Your task to perform on an android device: Show me productivity apps on the Play Store Image 0: 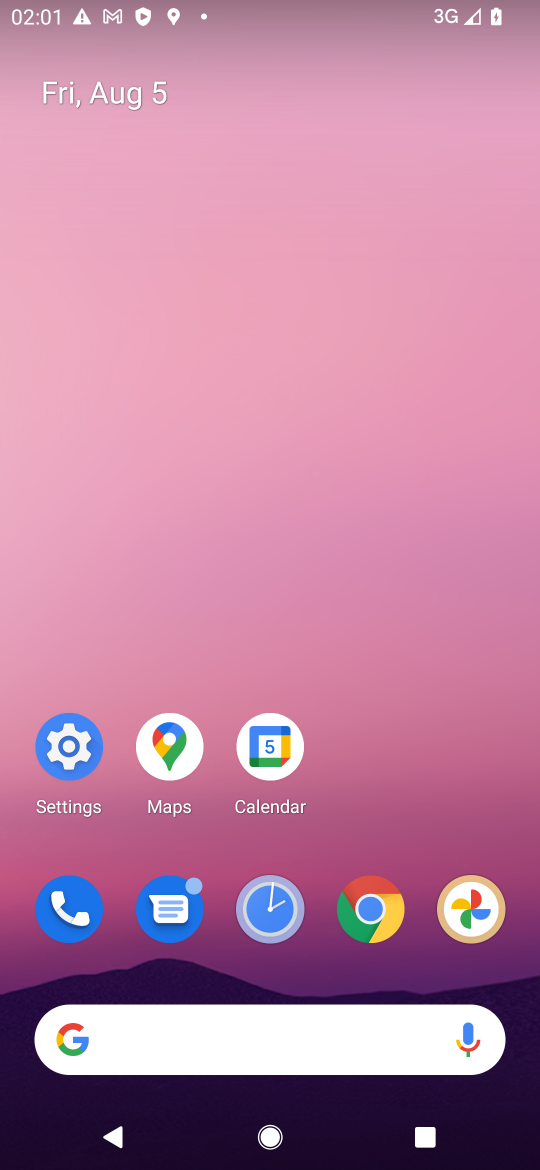
Step 0: drag from (385, 791) to (357, 192)
Your task to perform on an android device: Show me productivity apps on the Play Store Image 1: 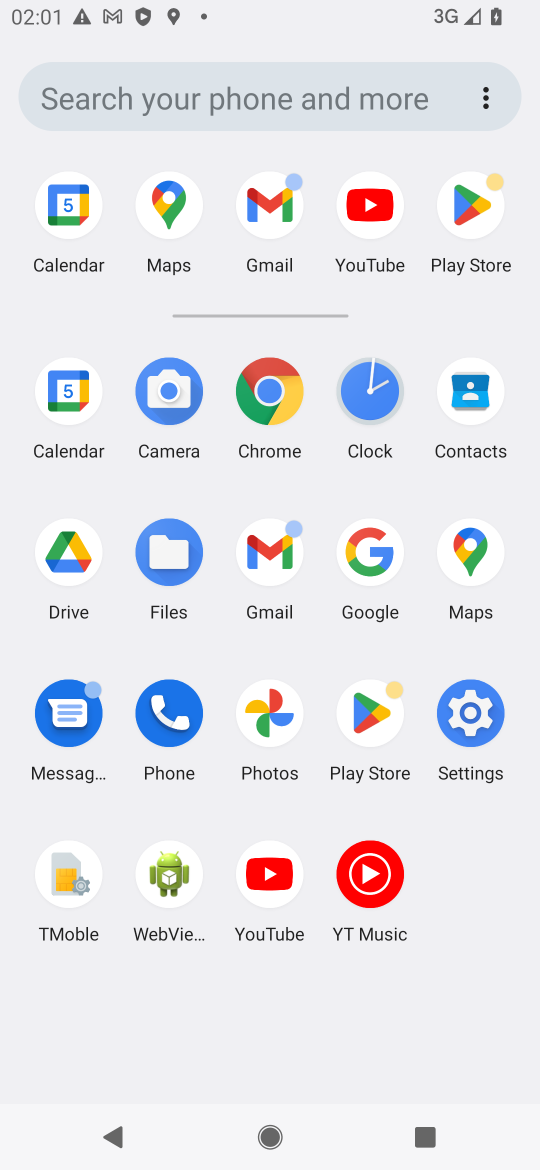
Step 1: click (375, 707)
Your task to perform on an android device: Show me productivity apps on the Play Store Image 2: 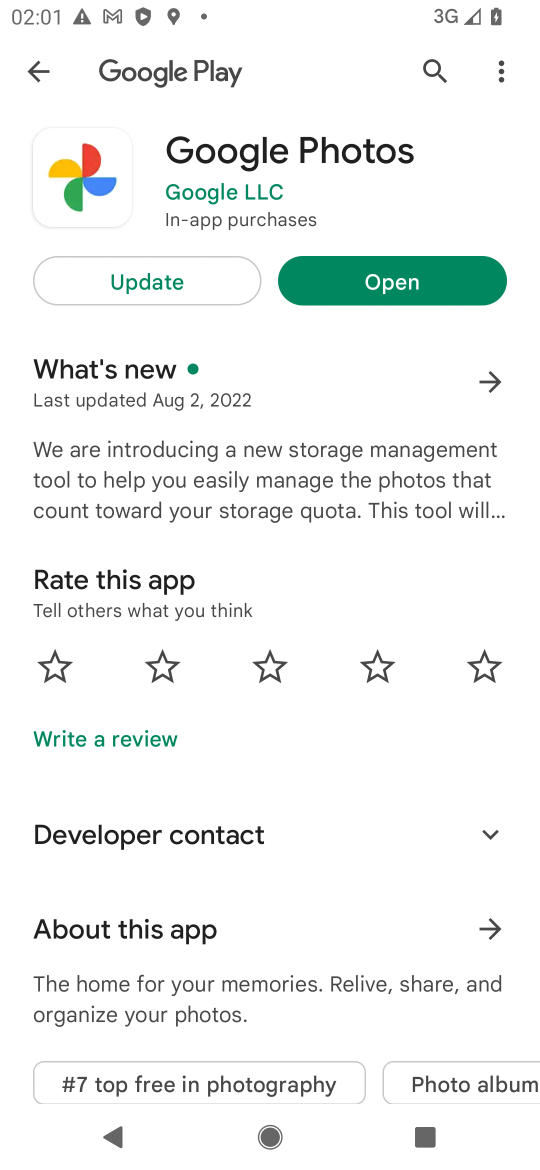
Step 2: click (31, 72)
Your task to perform on an android device: Show me productivity apps on the Play Store Image 3: 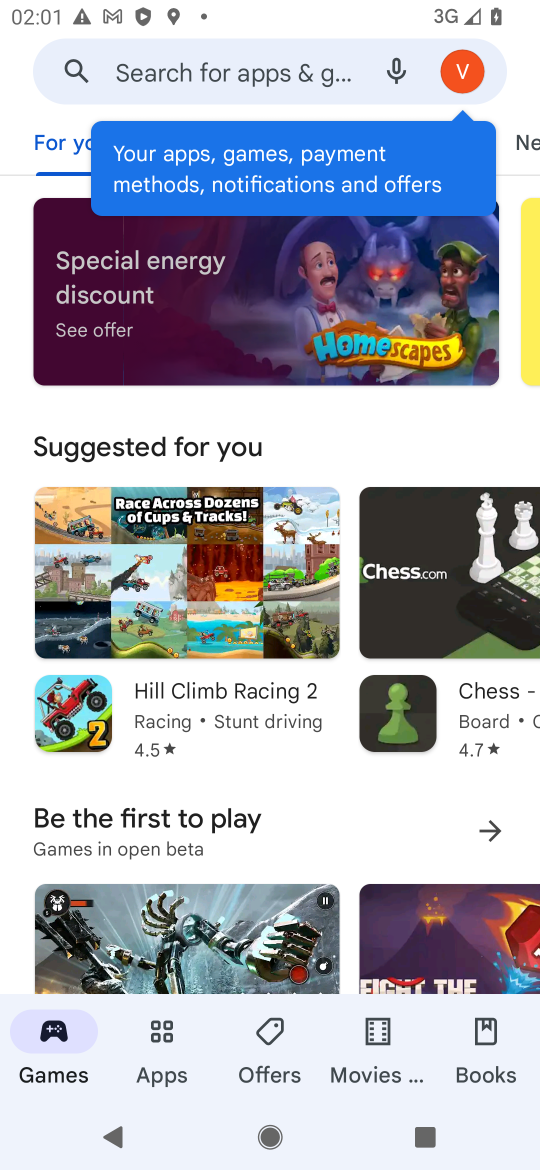
Step 3: click (157, 1030)
Your task to perform on an android device: Show me productivity apps on the Play Store Image 4: 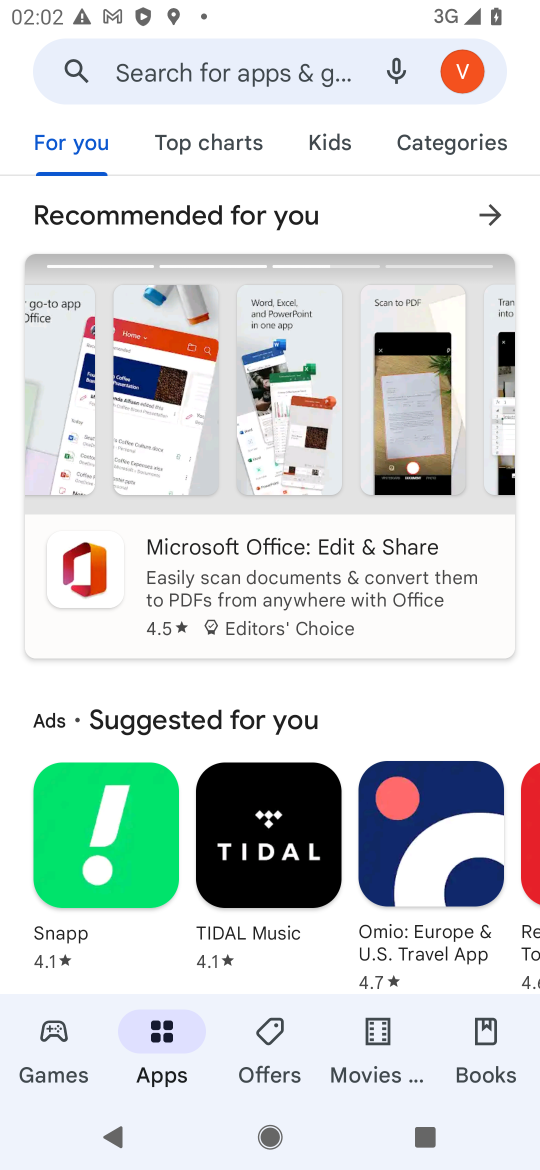
Step 4: task complete